Your task to perform on an android device: delete browsing data in the chrome app Image 0: 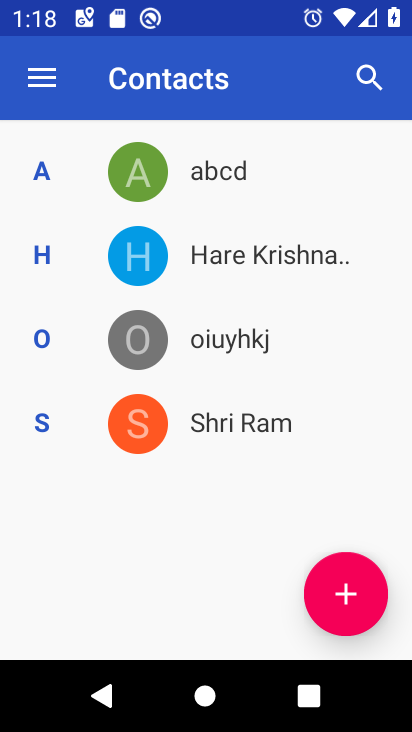
Step 0: press home button
Your task to perform on an android device: delete browsing data in the chrome app Image 1: 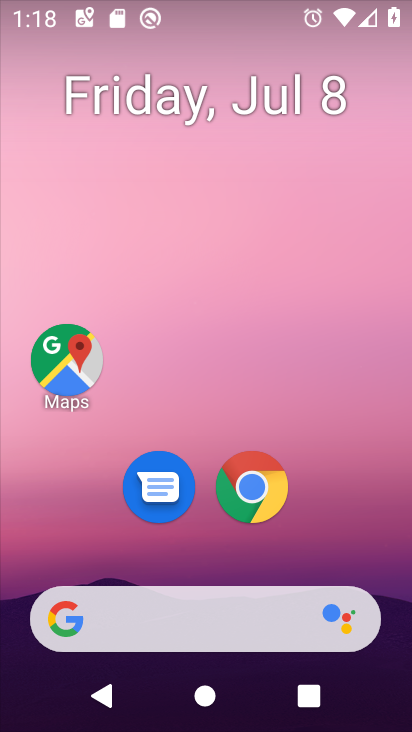
Step 1: drag from (386, 530) to (407, 452)
Your task to perform on an android device: delete browsing data in the chrome app Image 2: 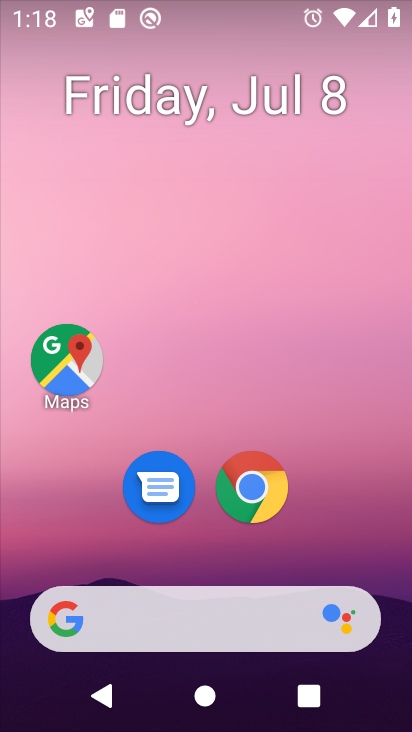
Step 2: drag from (343, 412) to (357, 81)
Your task to perform on an android device: delete browsing data in the chrome app Image 3: 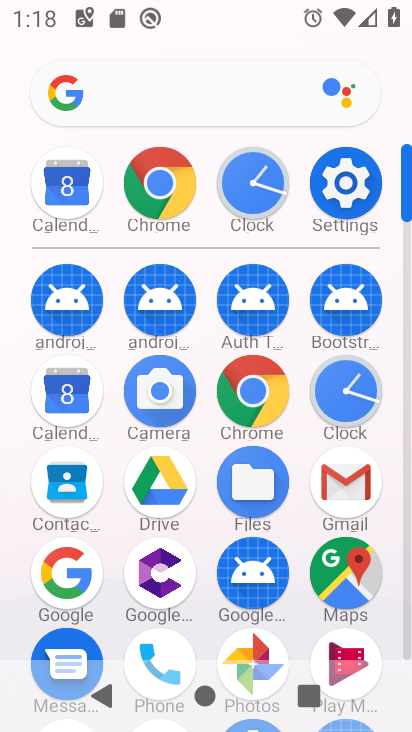
Step 3: click (272, 388)
Your task to perform on an android device: delete browsing data in the chrome app Image 4: 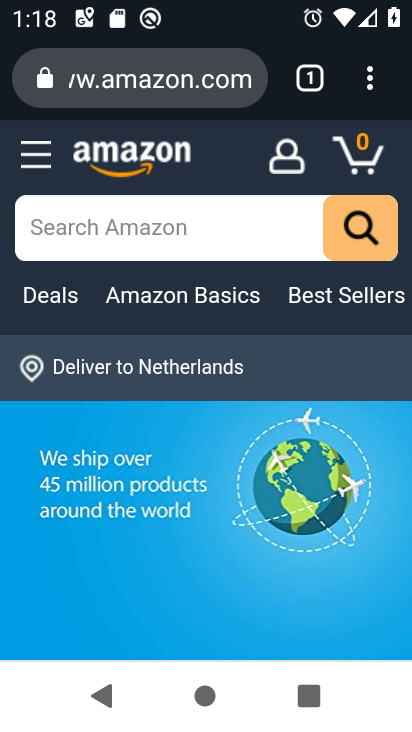
Step 4: click (370, 82)
Your task to perform on an android device: delete browsing data in the chrome app Image 5: 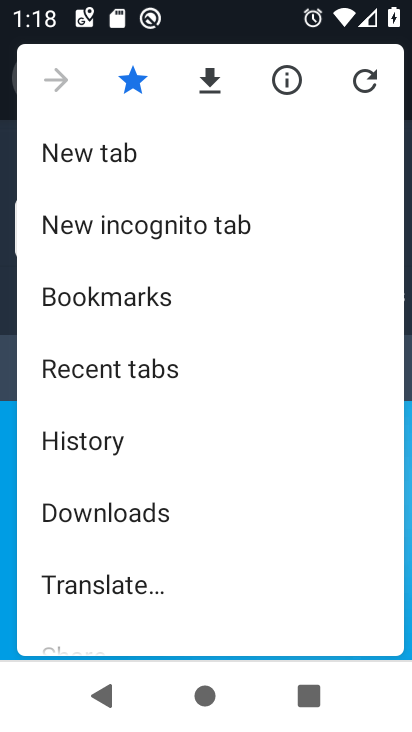
Step 5: drag from (263, 358) to (267, 281)
Your task to perform on an android device: delete browsing data in the chrome app Image 6: 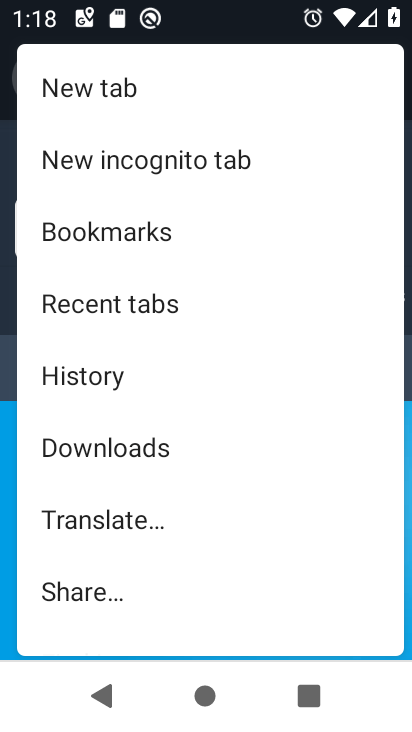
Step 6: drag from (308, 435) to (324, 344)
Your task to perform on an android device: delete browsing data in the chrome app Image 7: 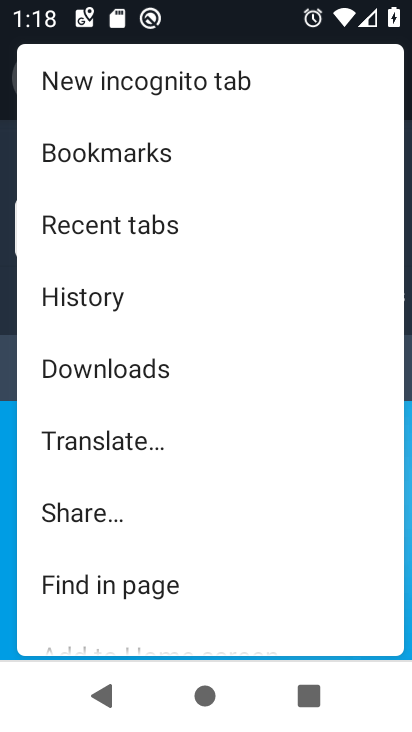
Step 7: drag from (305, 448) to (316, 347)
Your task to perform on an android device: delete browsing data in the chrome app Image 8: 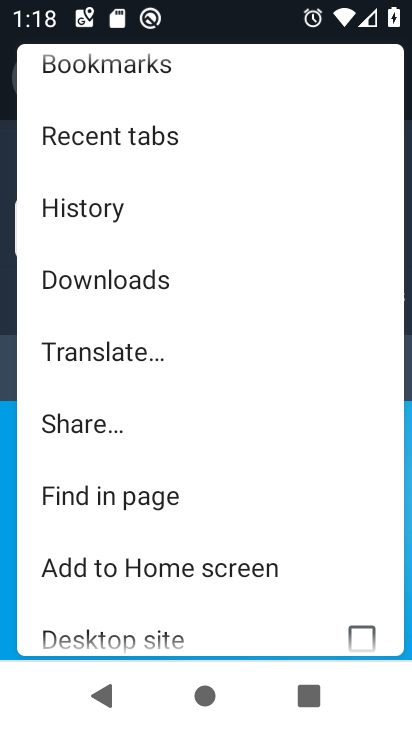
Step 8: drag from (313, 459) to (300, 338)
Your task to perform on an android device: delete browsing data in the chrome app Image 9: 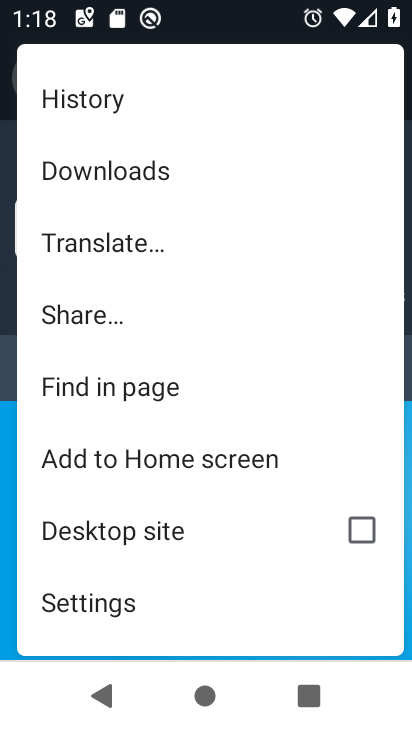
Step 9: drag from (265, 504) to (298, 352)
Your task to perform on an android device: delete browsing data in the chrome app Image 10: 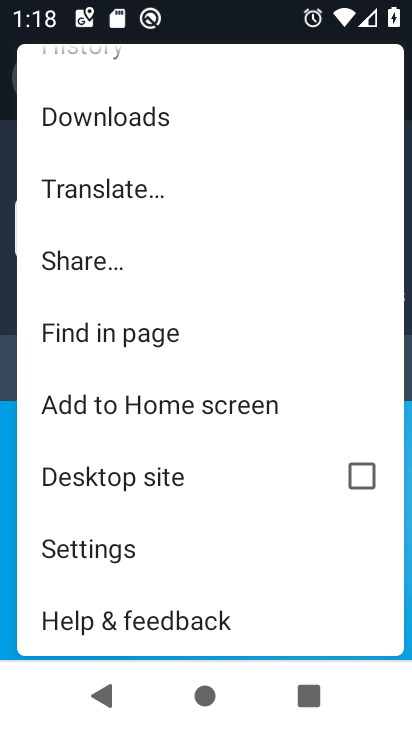
Step 10: click (244, 561)
Your task to perform on an android device: delete browsing data in the chrome app Image 11: 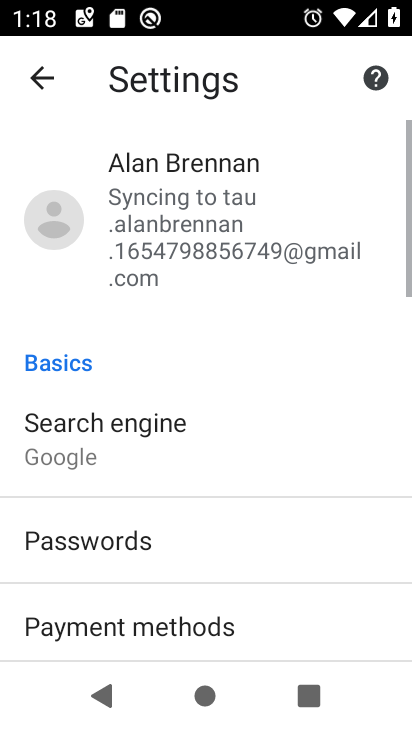
Step 11: drag from (324, 535) to (321, 424)
Your task to perform on an android device: delete browsing data in the chrome app Image 12: 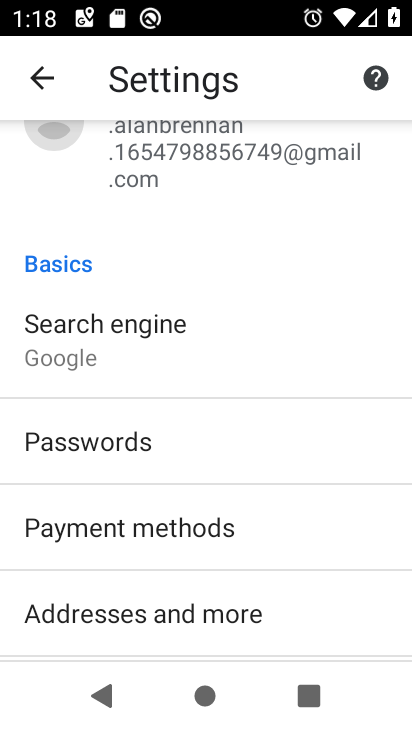
Step 12: drag from (329, 508) to (331, 427)
Your task to perform on an android device: delete browsing data in the chrome app Image 13: 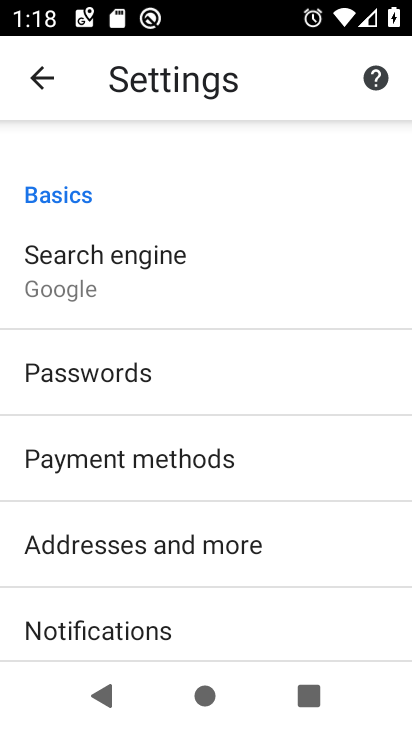
Step 13: drag from (330, 527) to (331, 434)
Your task to perform on an android device: delete browsing data in the chrome app Image 14: 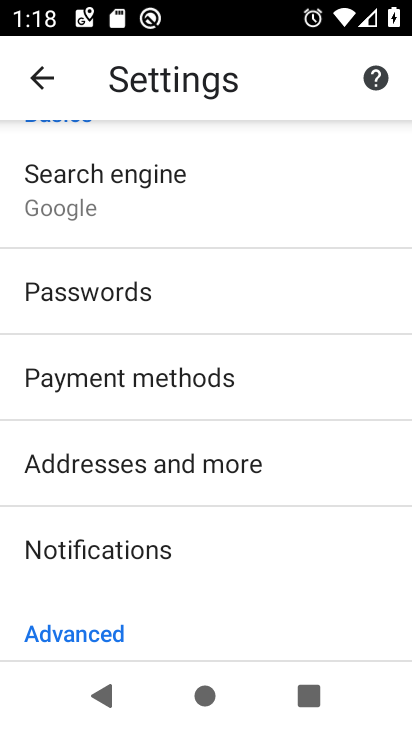
Step 14: drag from (336, 541) to (344, 435)
Your task to perform on an android device: delete browsing data in the chrome app Image 15: 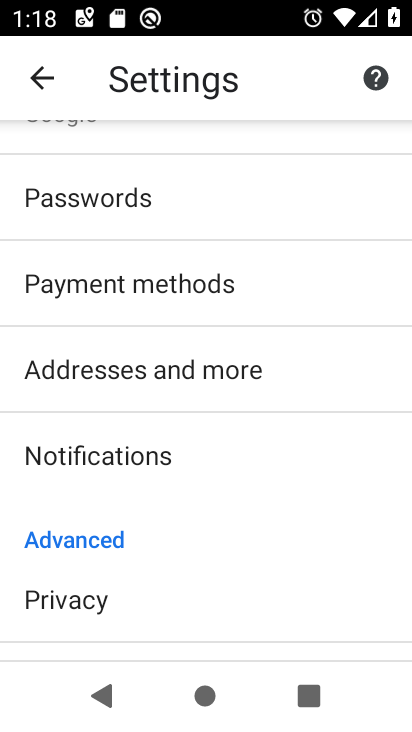
Step 15: drag from (314, 563) to (333, 444)
Your task to perform on an android device: delete browsing data in the chrome app Image 16: 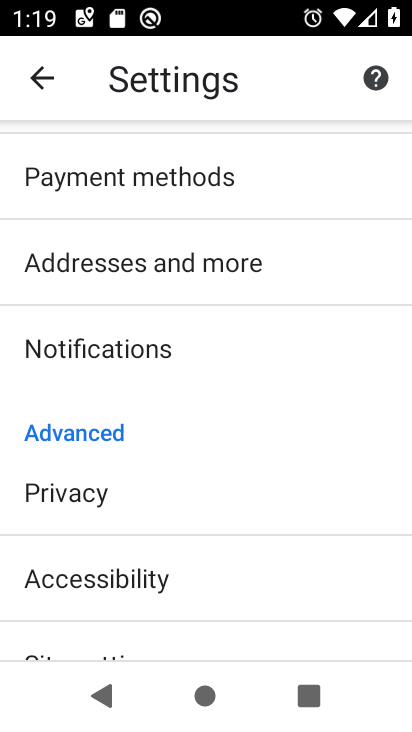
Step 16: click (334, 494)
Your task to perform on an android device: delete browsing data in the chrome app Image 17: 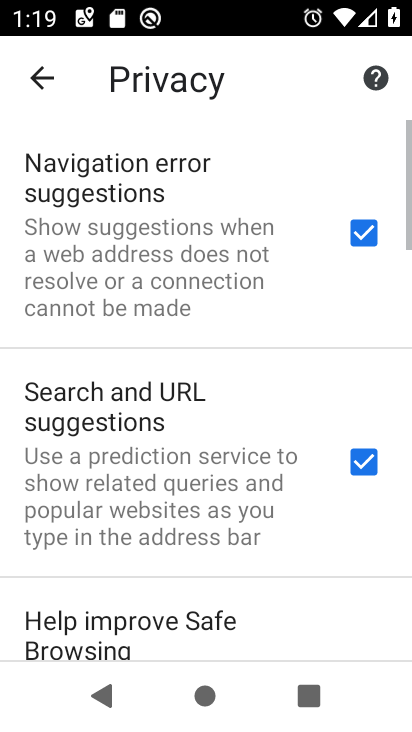
Step 17: drag from (337, 565) to (337, 498)
Your task to perform on an android device: delete browsing data in the chrome app Image 18: 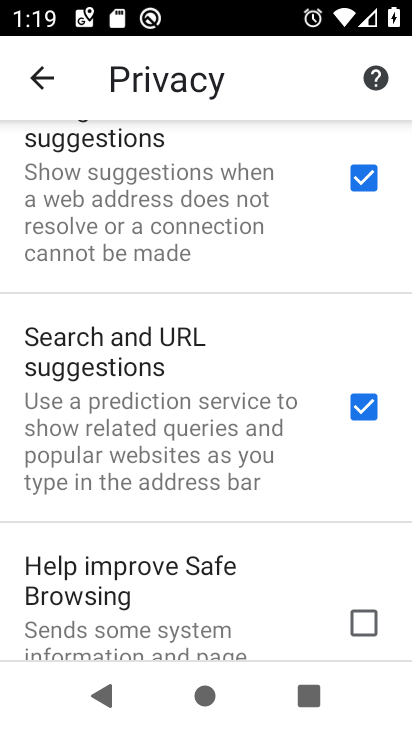
Step 18: drag from (304, 600) to (300, 509)
Your task to perform on an android device: delete browsing data in the chrome app Image 19: 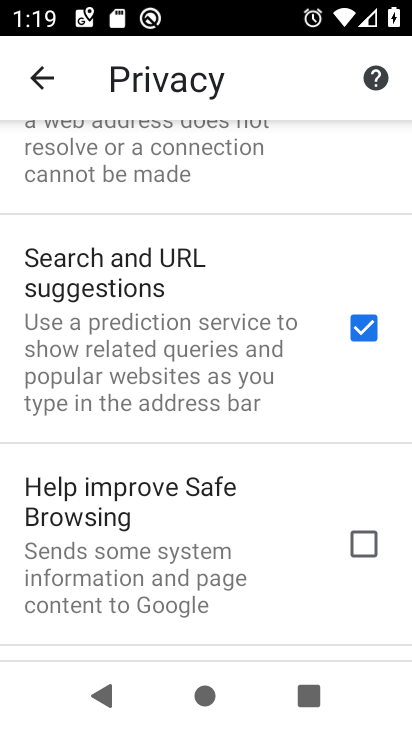
Step 19: drag from (314, 602) to (319, 497)
Your task to perform on an android device: delete browsing data in the chrome app Image 20: 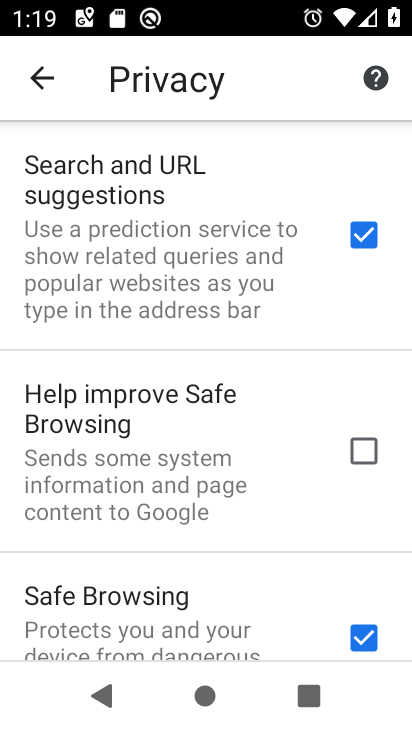
Step 20: drag from (310, 604) to (300, 433)
Your task to perform on an android device: delete browsing data in the chrome app Image 21: 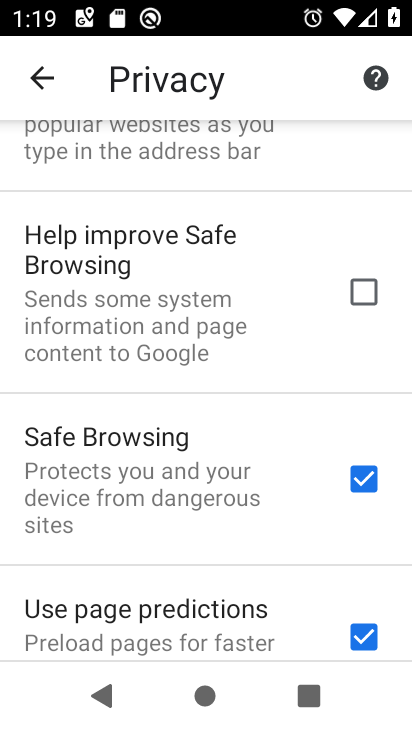
Step 21: drag from (267, 559) to (272, 438)
Your task to perform on an android device: delete browsing data in the chrome app Image 22: 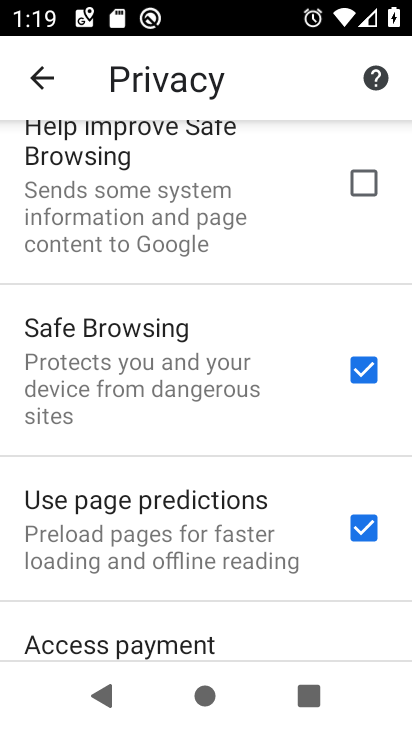
Step 22: drag from (298, 590) to (288, 355)
Your task to perform on an android device: delete browsing data in the chrome app Image 23: 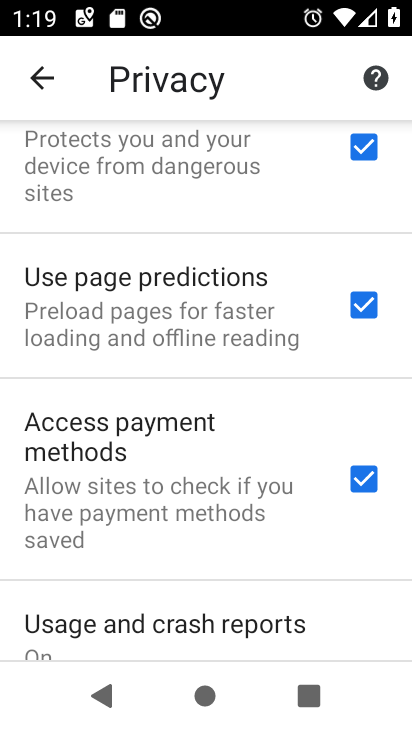
Step 23: drag from (284, 552) to (283, 405)
Your task to perform on an android device: delete browsing data in the chrome app Image 24: 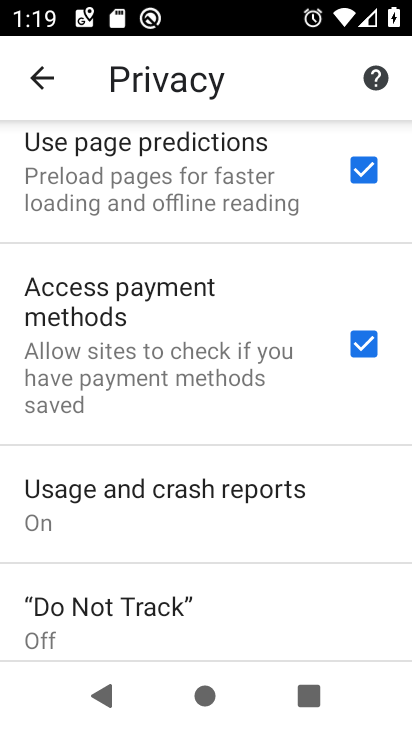
Step 24: drag from (296, 578) to (294, 346)
Your task to perform on an android device: delete browsing data in the chrome app Image 25: 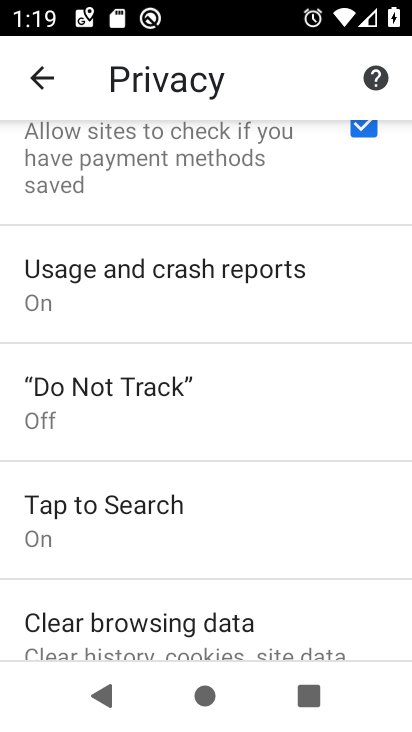
Step 25: drag from (291, 579) to (297, 404)
Your task to perform on an android device: delete browsing data in the chrome app Image 26: 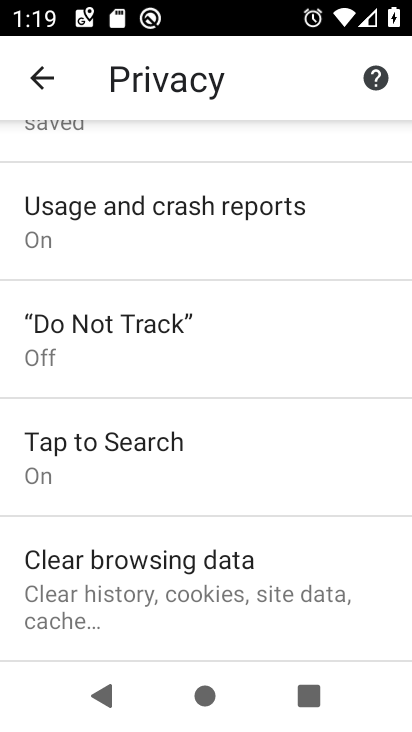
Step 26: click (285, 569)
Your task to perform on an android device: delete browsing data in the chrome app Image 27: 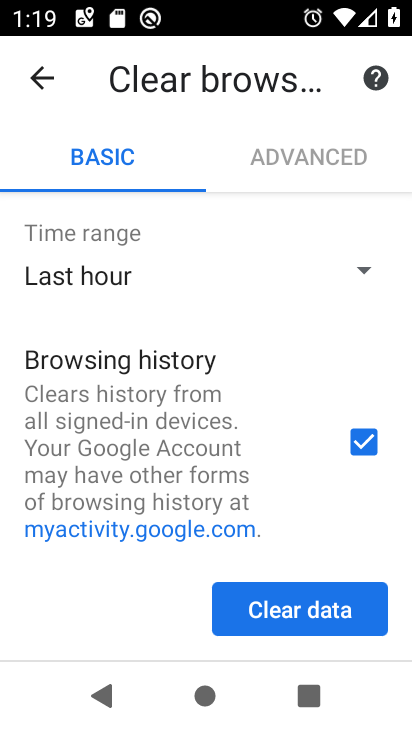
Step 27: click (346, 614)
Your task to perform on an android device: delete browsing data in the chrome app Image 28: 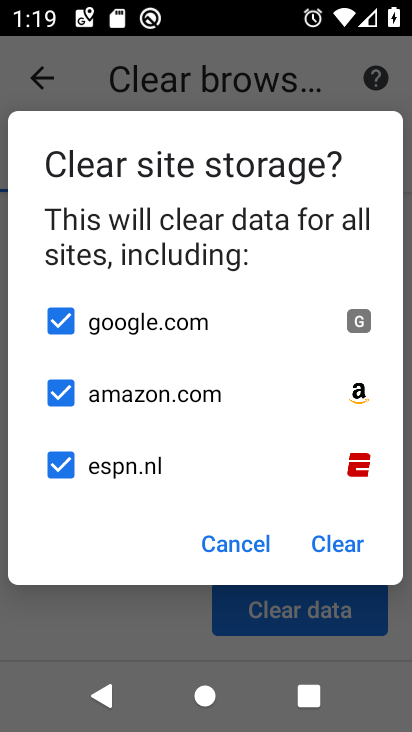
Step 28: click (360, 545)
Your task to perform on an android device: delete browsing data in the chrome app Image 29: 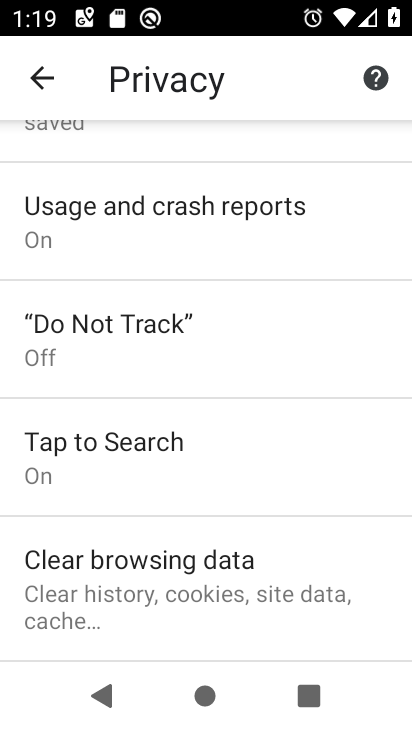
Step 29: task complete